Your task to perform on an android device: toggle show notifications on the lock screen Image 0: 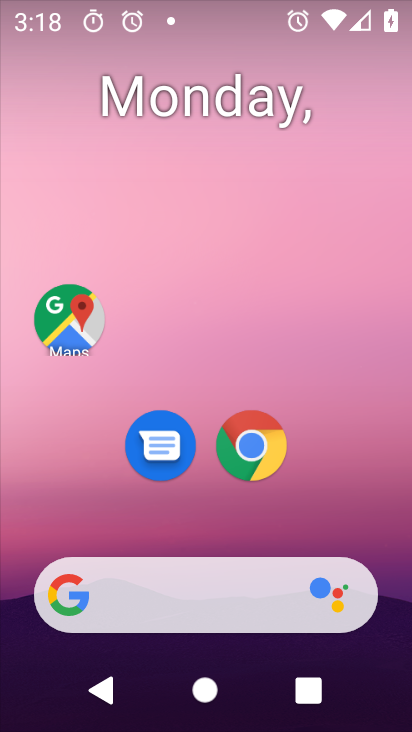
Step 0: drag from (209, 567) to (226, 73)
Your task to perform on an android device: toggle show notifications on the lock screen Image 1: 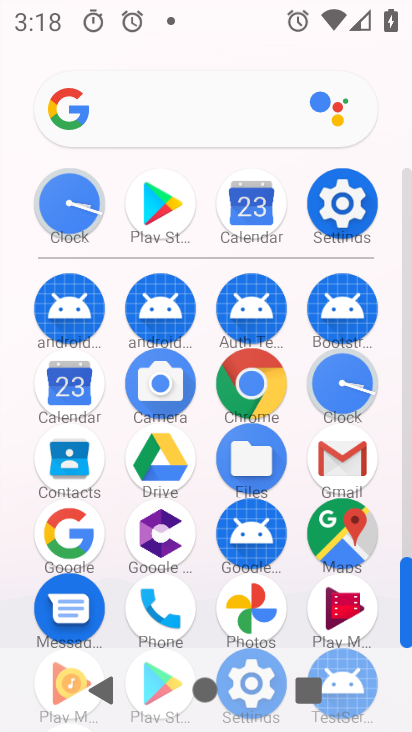
Step 1: click (337, 204)
Your task to perform on an android device: toggle show notifications on the lock screen Image 2: 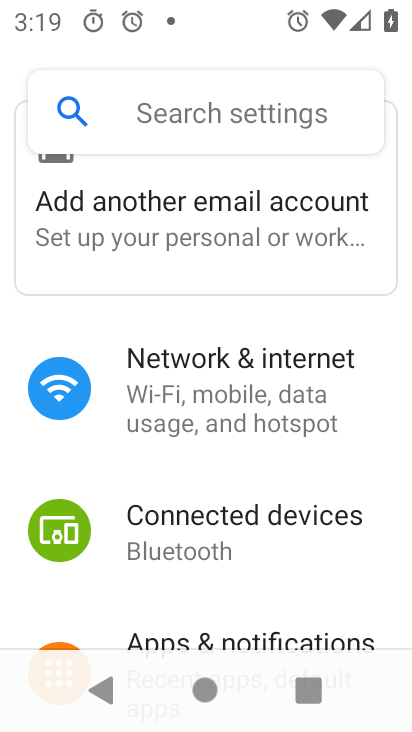
Step 2: drag from (208, 557) to (224, 248)
Your task to perform on an android device: toggle show notifications on the lock screen Image 3: 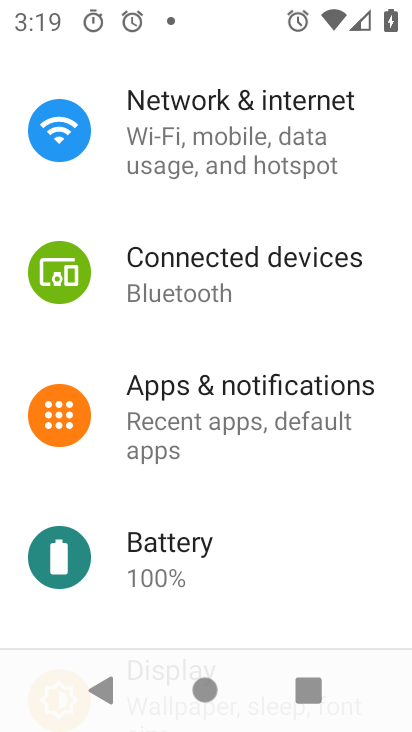
Step 3: click (221, 432)
Your task to perform on an android device: toggle show notifications on the lock screen Image 4: 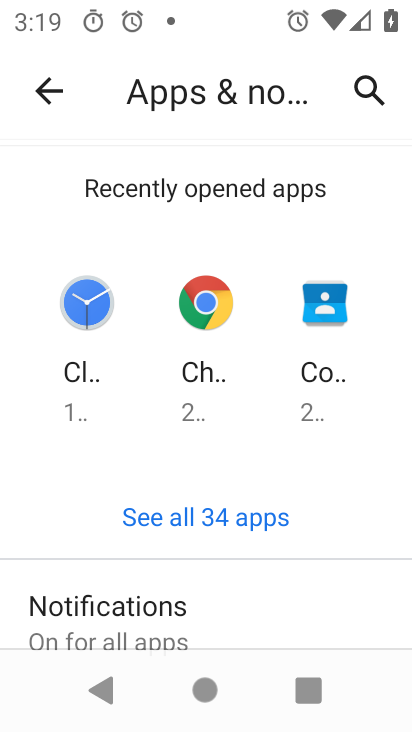
Step 4: drag from (192, 576) to (224, 103)
Your task to perform on an android device: toggle show notifications on the lock screen Image 5: 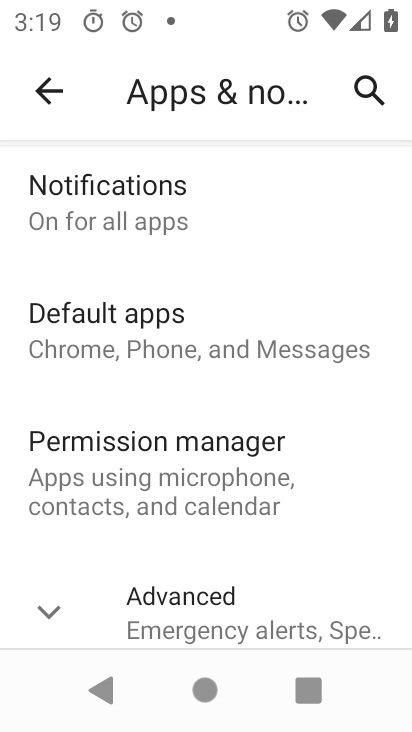
Step 5: click (154, 218)
Your task to perform on an android device: toggle show notifications on the lock screen Image 6: 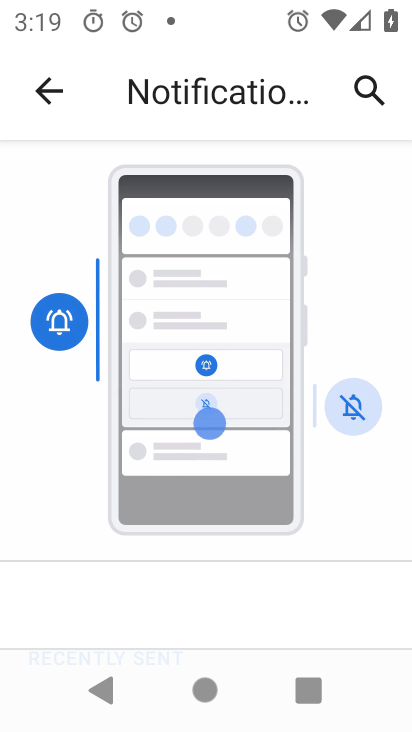
Step 6: drag from (217, 622) to (200, 171)
Your task to perform on an android device: toggle show notifications on the lock screen Image 7: 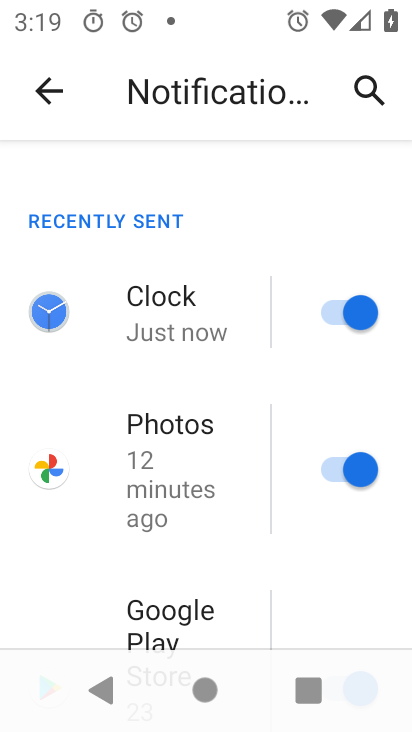
Step 7: drag from (188, 544) to (184, 29)
Your task to perform on an android device: toggle show notifications on the lock screen Image 8: 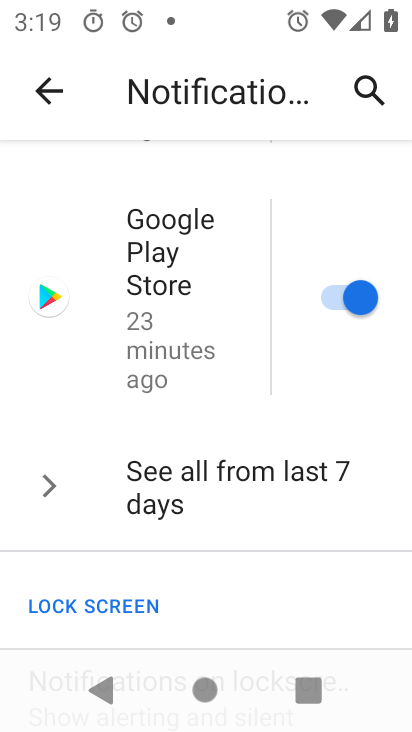
Step 8: drag from (159, 547) to (182, 10)
Your task to perform on an android device: toggle show notifications on the lock screen Image 9: 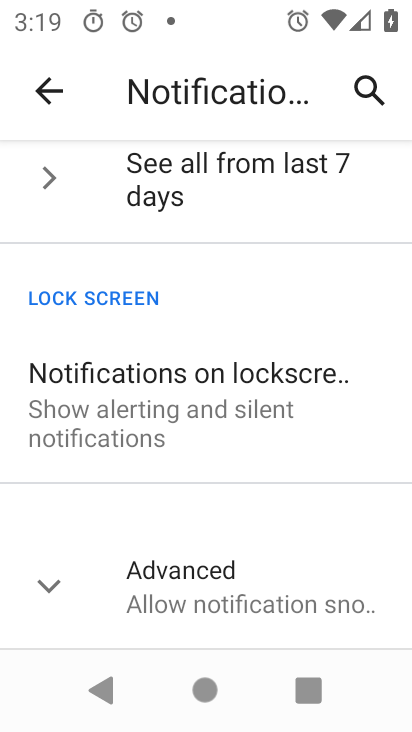
Step 9: click (119, 414)
Your task to perform on an android device: toggle show notifications on the lock screen Image 10: 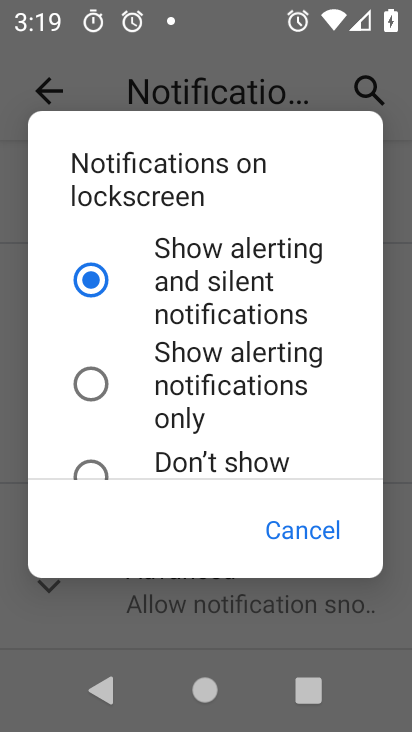
Step 10: click (206, 303)
Your task to perform on an android device: toggle show notifications on the lock screen Image 11: 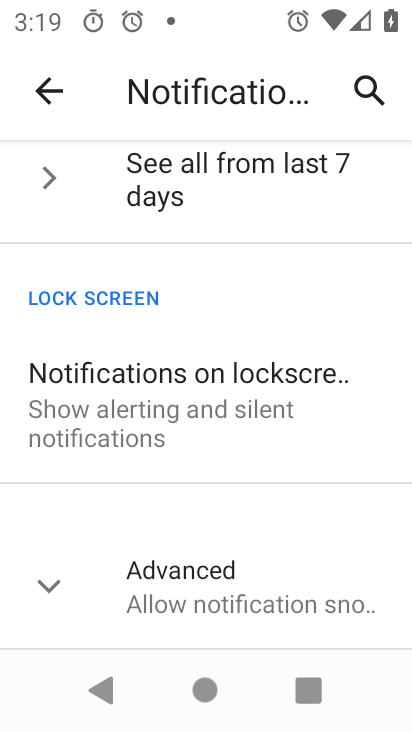
Step 11: task complete